Your task to perform on an android device: Open Android settings Image 0: 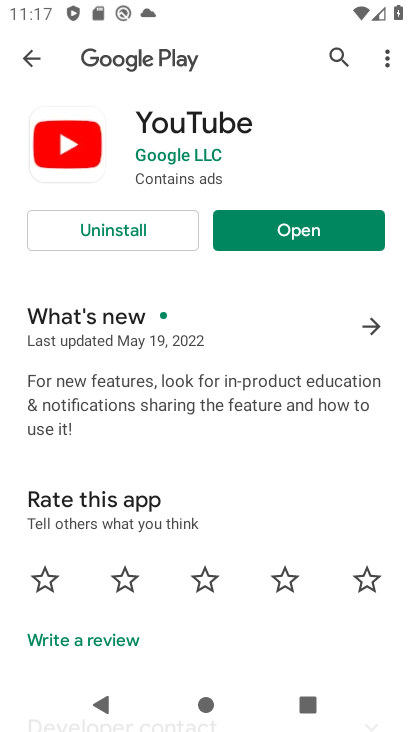
Step 0: press home button
Your task to perform on an android device: Open Android settings Image 1: 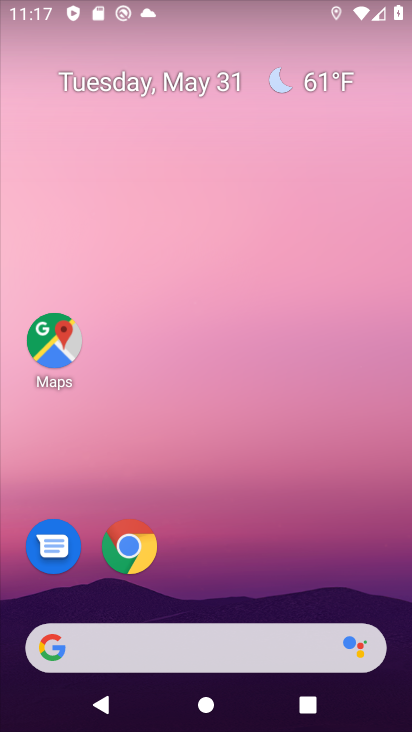
Step 1: drag from (245, 618) to (260, 9)
Your task to perform on an android device: Open Android settings Image 2: 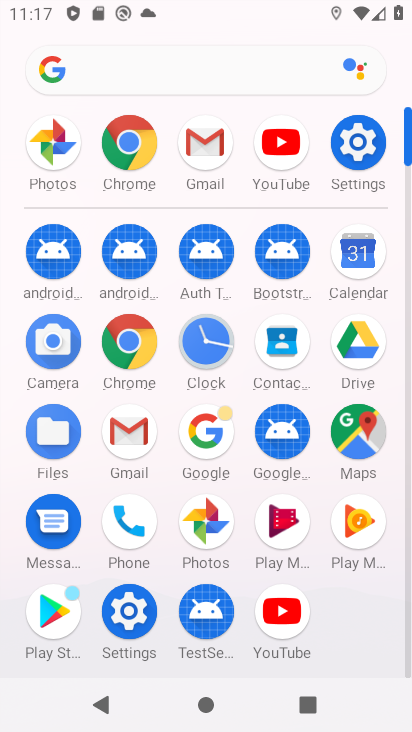
Step 2: click (362, 146)
Your task to perform on an android device: Open Android settings Image 3: 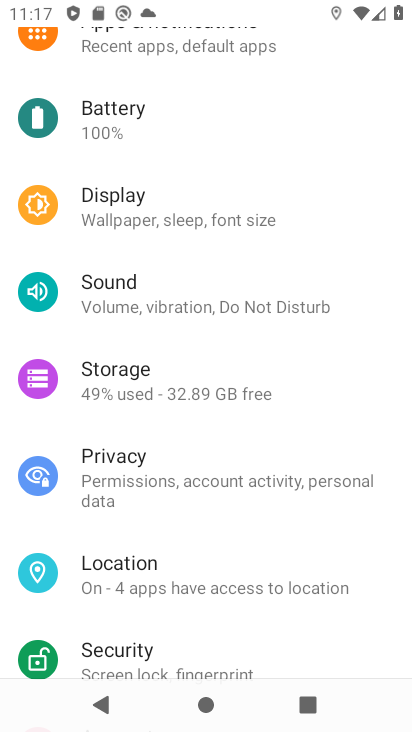
Step 3: task complete